Your task to perform on an android device: toggle airplane mode Image 0: 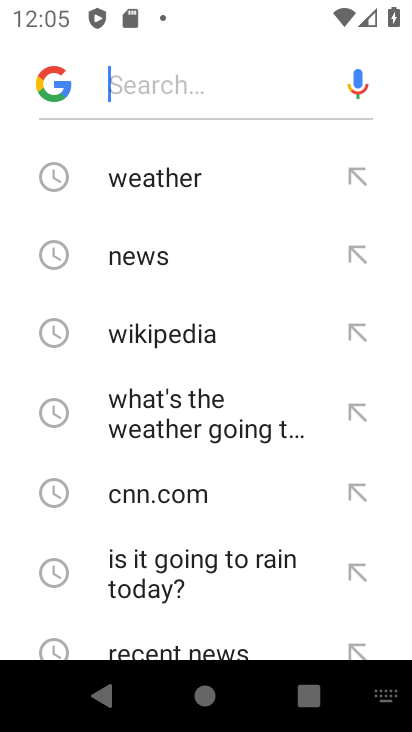
Step 0: press home button
Your task to perform on an android device: toggle airplane mode Image 1: 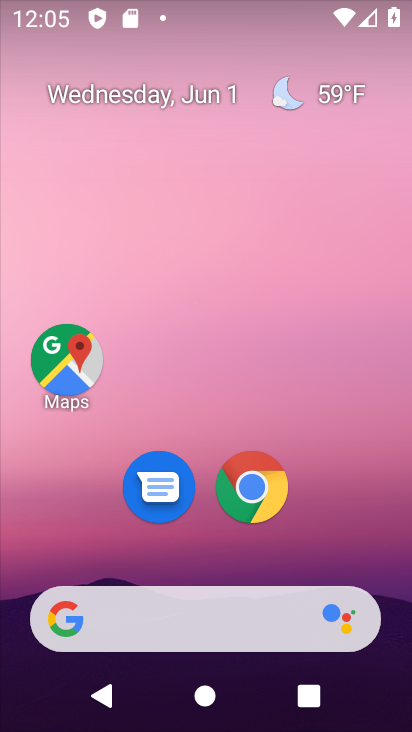
Step 1: drag from (354, 9) to (267, 509)
Your task to perform on an android device: toggle airplane mode Image 2: 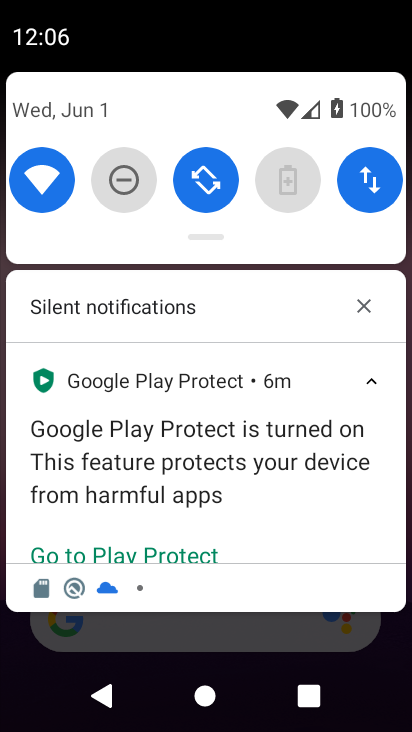
Step 2: drag from (202, 210) to (257, 562)
Your task to perform on an android device: toggle airplane mode Image 3: 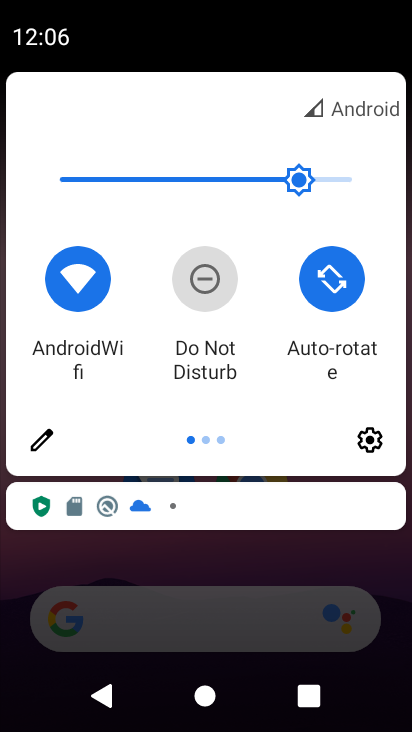
Step 3: drag from (383, 288) to (48, 259)
Your task to perform on an android device: toggle airplane mode Image 4: 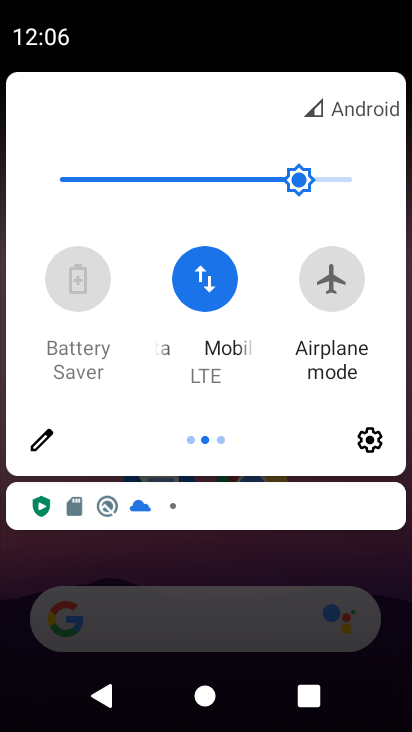
Step 4: click (324, 276)
Your task to perform on an android device: toggle airplane mode Image 5: 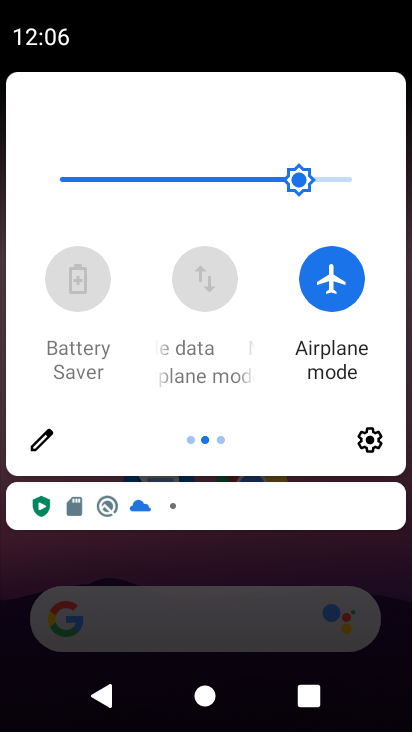
Step 5: task complete